Your task to perform on an android device: open chrome privacy settings Image 0: 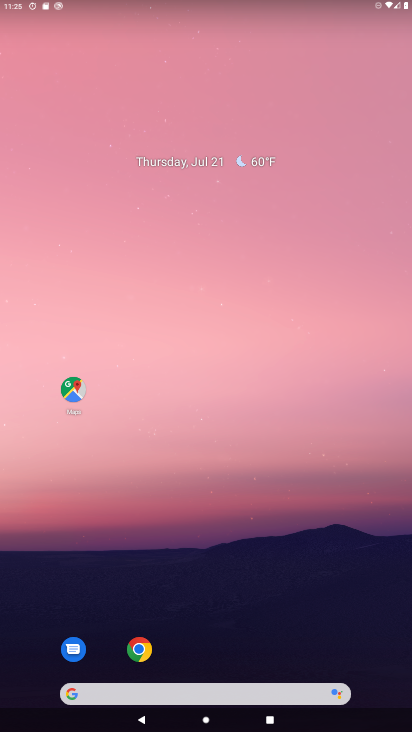
Step 0: click (144, 651)
Your task to perform on an android device: open chrome privacy settings Image 1: 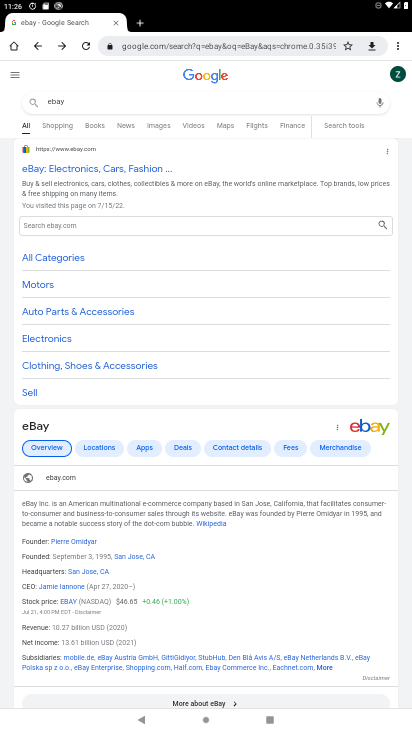
Step 1: click (396, 43)
Your task to perform on an android device: open chrome privacy settings Image 2: 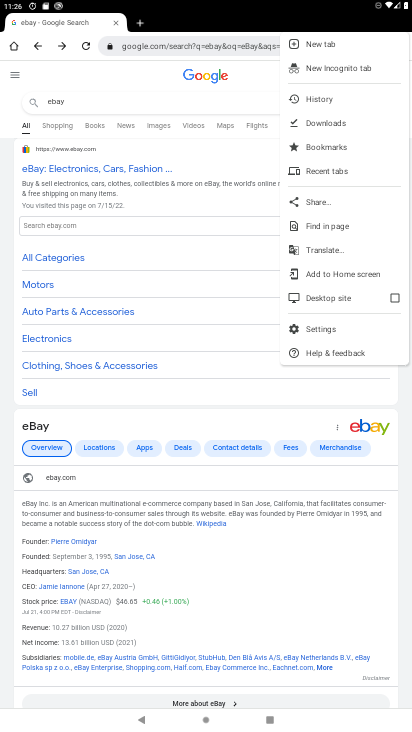
Step 2: click (308, 327)
Your task to perform on an android device: open chrome privacy settings Image 3: 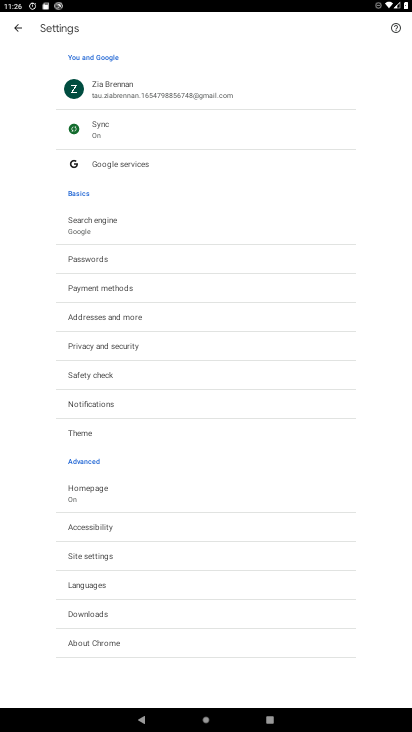
Step 3: task complete